Your task to perform on an android device: Turn off the flashlight Image 0: 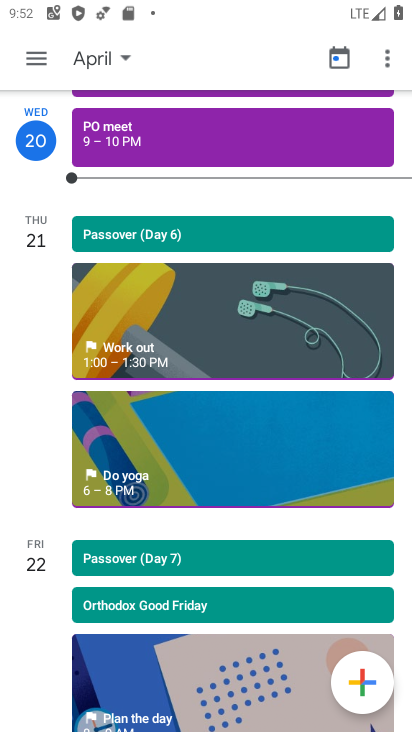
Step 0: drag from (223, 16) to (170, 570)
Your task to perform on an android device: Turn off the flashlight Image 1: 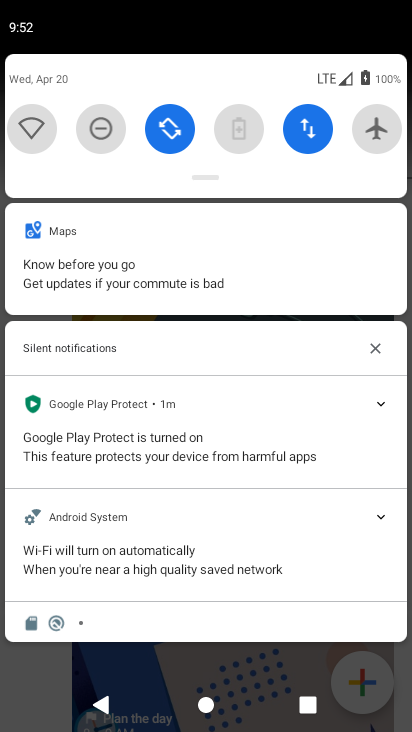
Step 1: drag from (214, 88) to (221, 575)
Your task to perform on an android device: Turn off the flashlight Image 2: 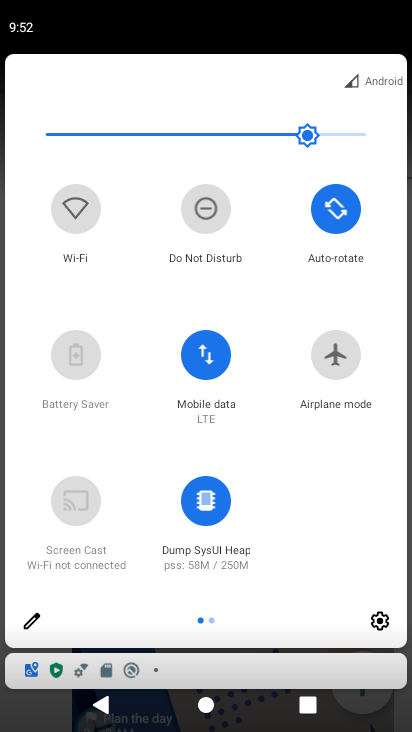
Step 2: click (375, 627)
Your task to perform on an android device: Turn off the flashlight Image 3: 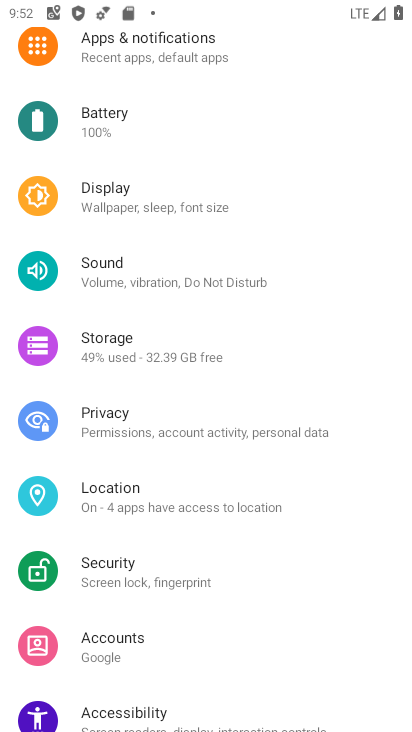
Step 3: task complete